Your task to perform on an android device: star an email in the gmail app Image 0: 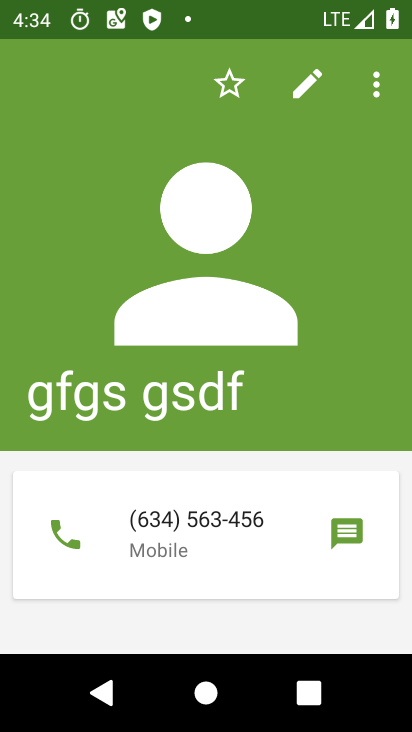
Step 0: press home button
Your task to perform on an android device: star an email in the gmail app Image 1: 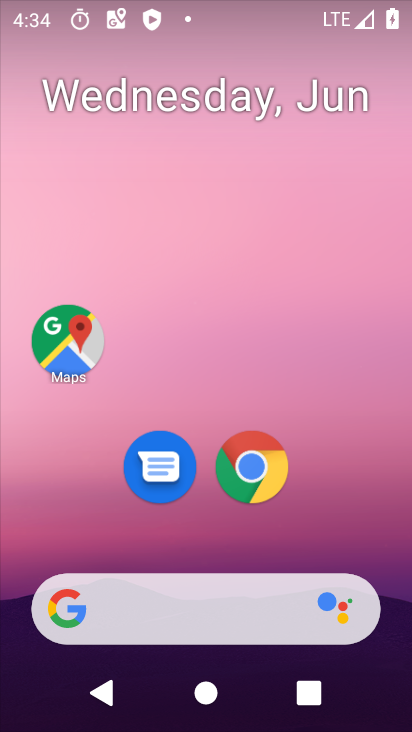
Step 1: drag from (308, 521) to (245, 42)
Your task to perform on an android device: star an email in the gmail app Image 2: 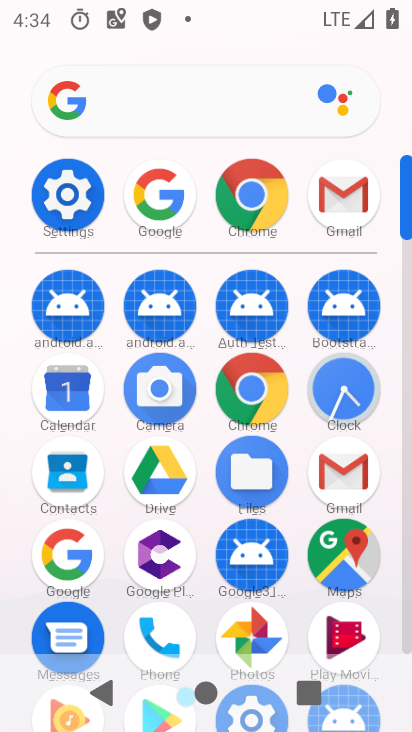
Step 2: click (341, 204)
Your task to perform on an android device: star an email in the gmail app Image 3: 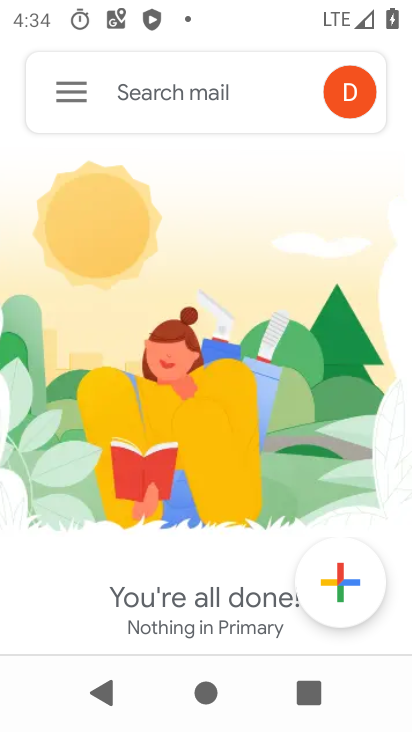
Step 3: click (93, 78)
Your task to perform on an android device: star an email in the gmail app Image 4: 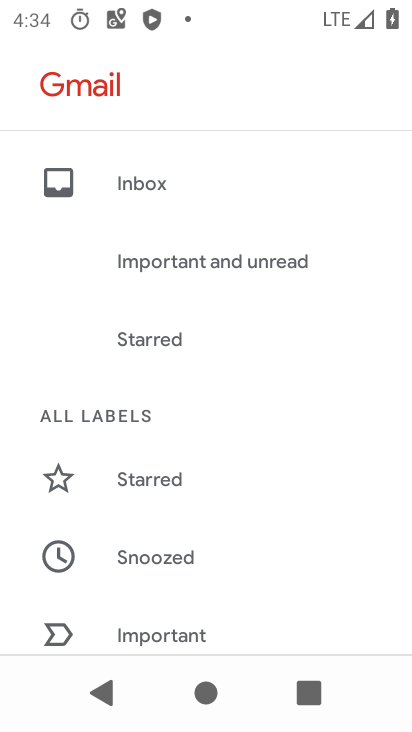
Step 4: click (199, 192)
Your task to perform on an android device: star an email in the gmail app Image 5: 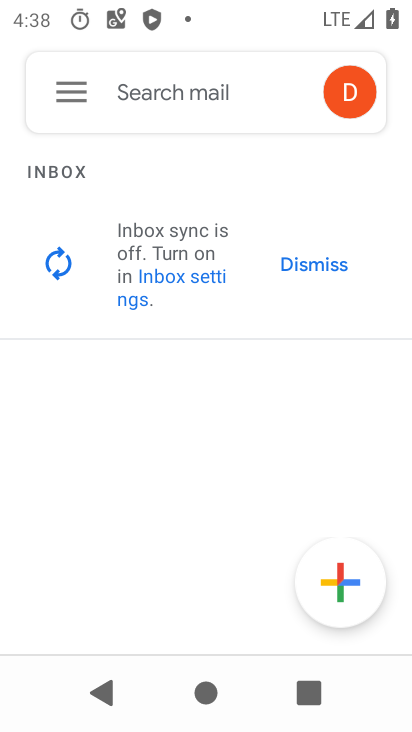
Step 5: task complete